Your task to perform on an android device: Go to privacy settings Image 0: 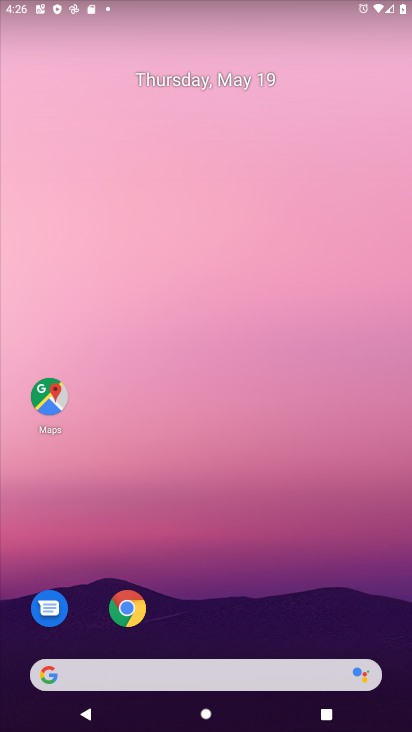
Step 0: drag from (361, 645) to (290, 32)
Your task to perform on an android device: Go to privacy settings Image 1: 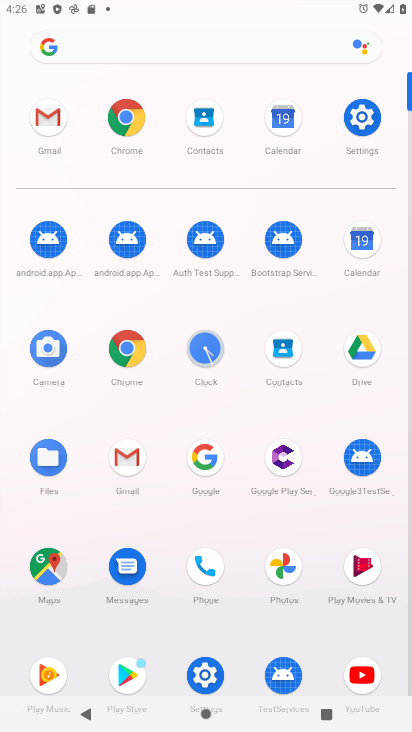
Step 1: click (352, 106)
Your task to perform on an android device: Go to privacy settings Image 2: 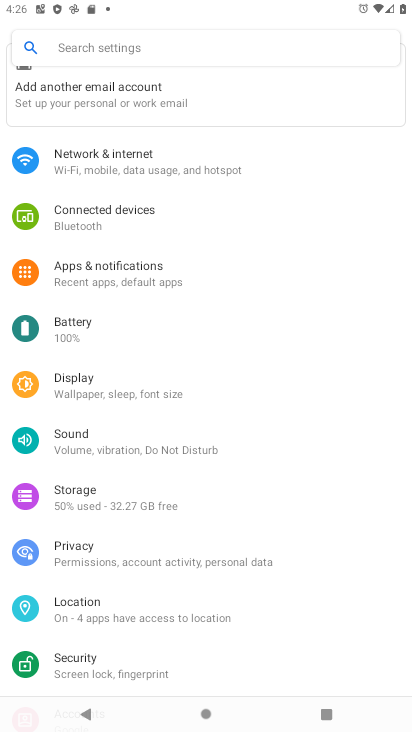
Step 2: click (125, 547)
Your task to perform on an android device: Go to privacy settings Image 3: 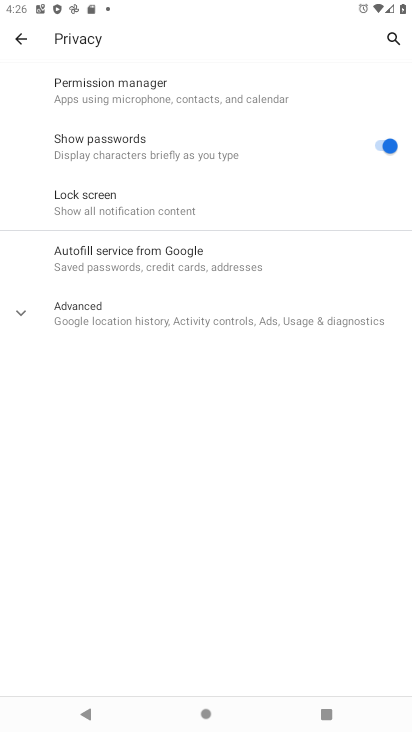
Step 3: task complete